Your task to perform on an android device: Open CNN.com Image 0: 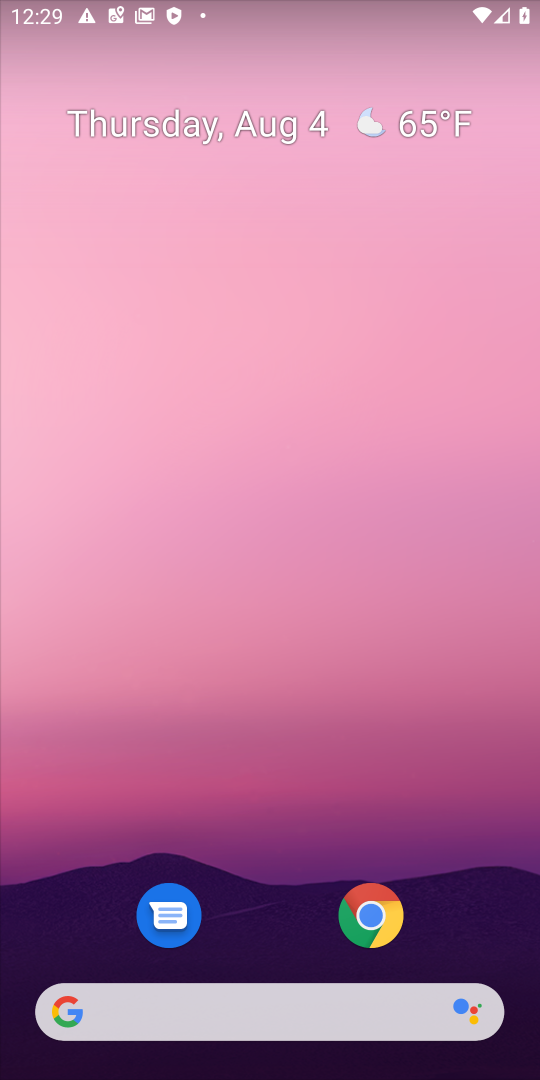
Step 0: click (369, 904)
Your task to perform on an android device: Open CNN.com Image 1: 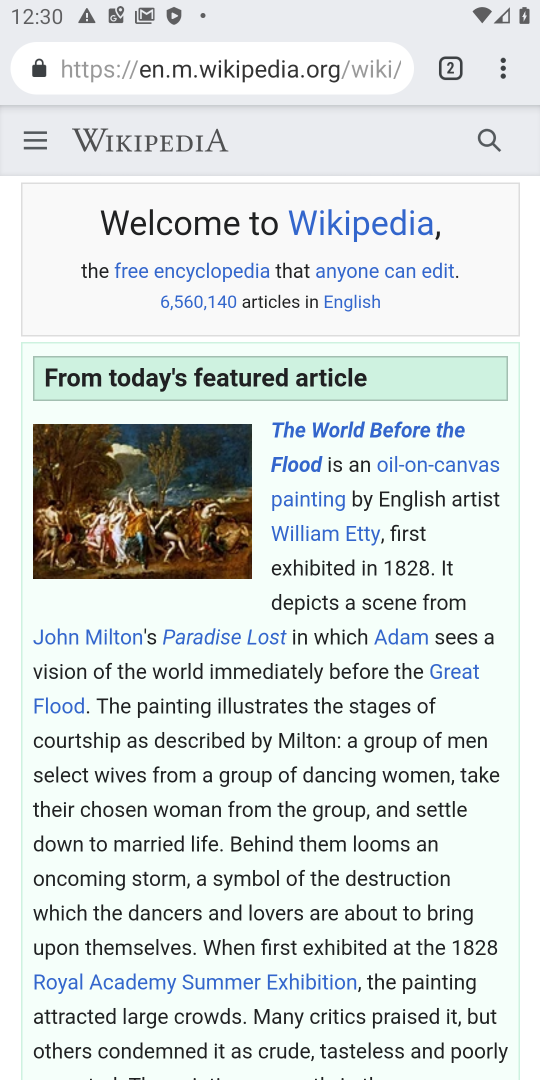
Step 1: press back button
Your task to perform on an android device: Open CNN.com Image 2: 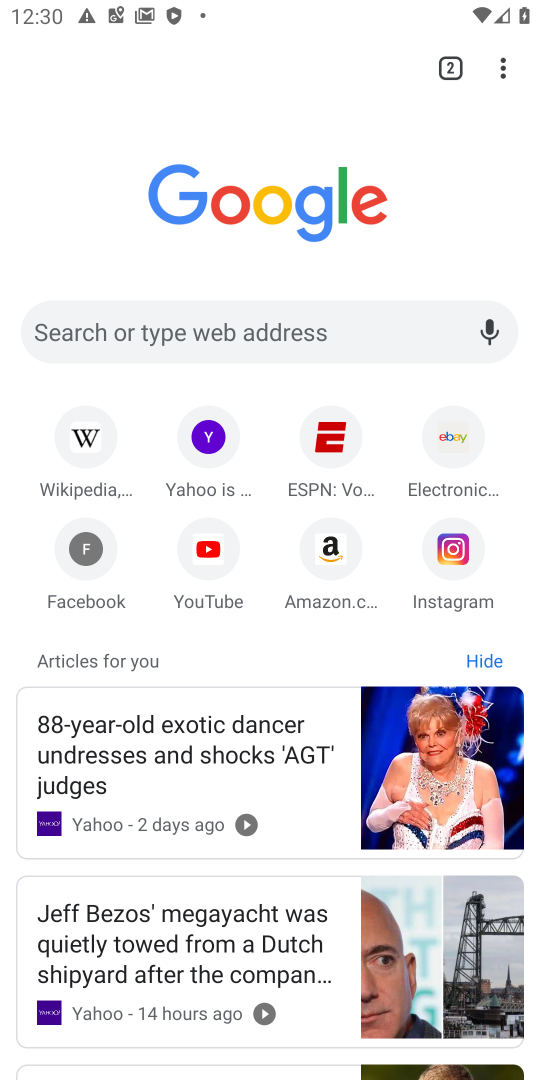
Step 2: click (262, 323)
Your task to perform on an android device: Open CNN.com Image 3: 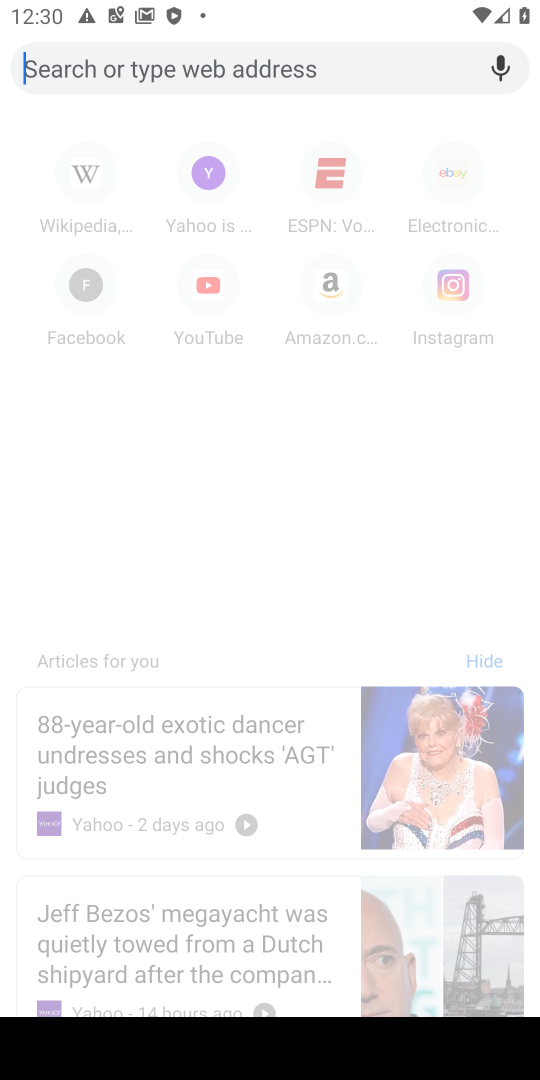
Step 3: type "www.cnn.com"
Your task to perform on an android device: Open CNN.com Image 4: 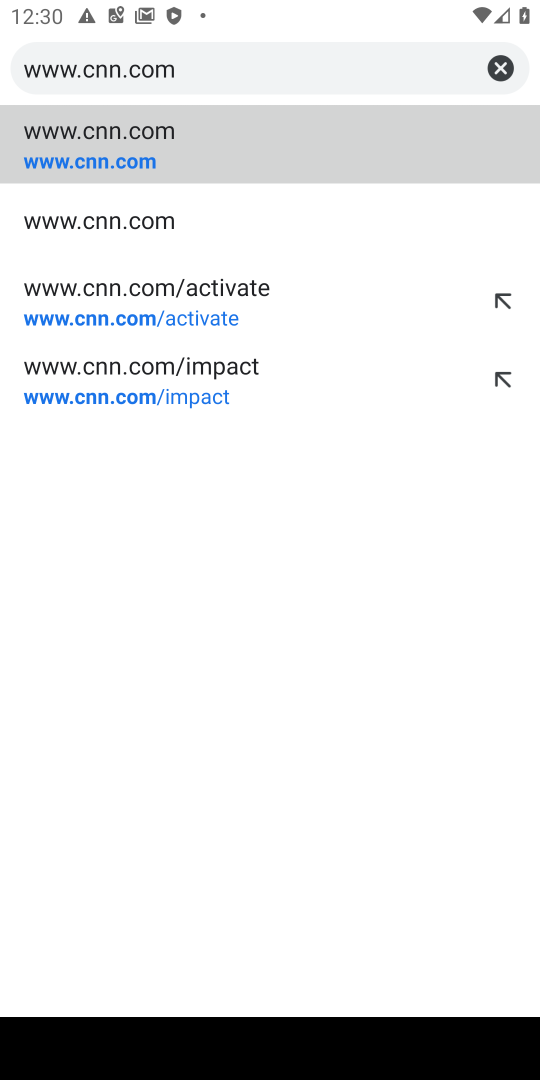
Step 4: click (127, 157)
Your task to perform on an android device: Open CNN.com Image 5: 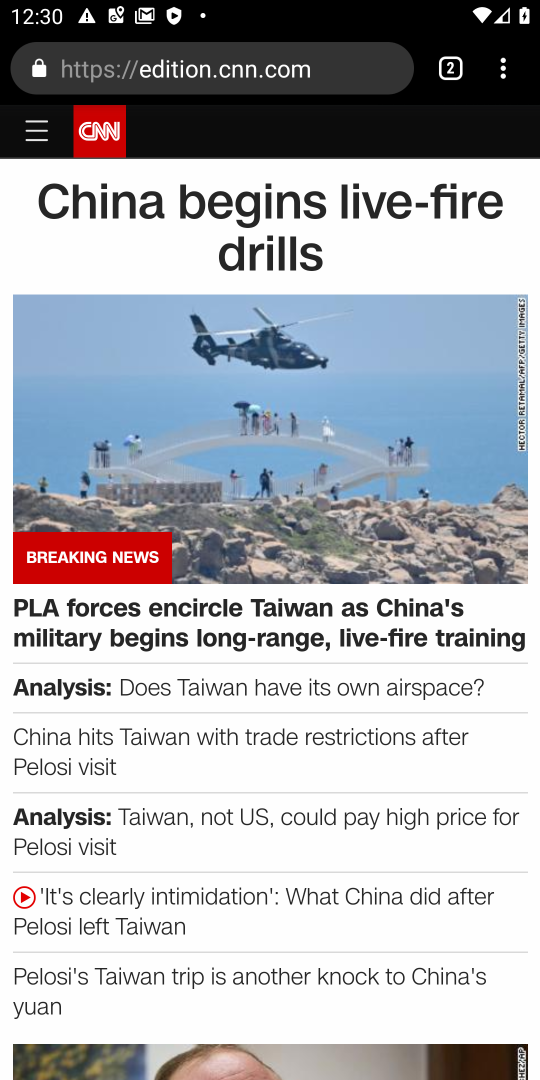
Step 5: task complete